Your task to perform on an android device: delete location history Image 0: 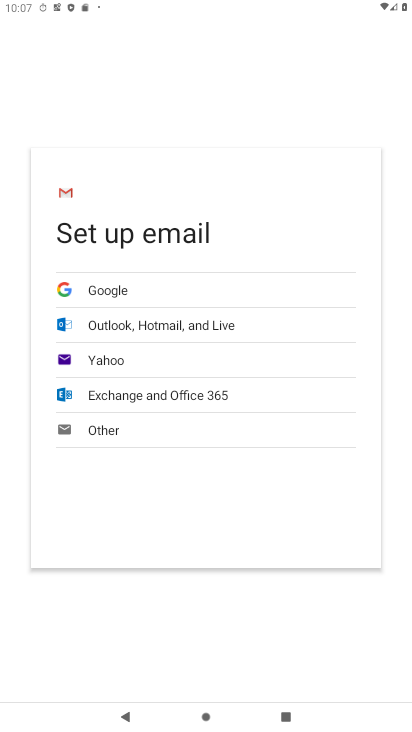
Step 0: press home button
Your task to perform on an android device: delete location history Image 1: 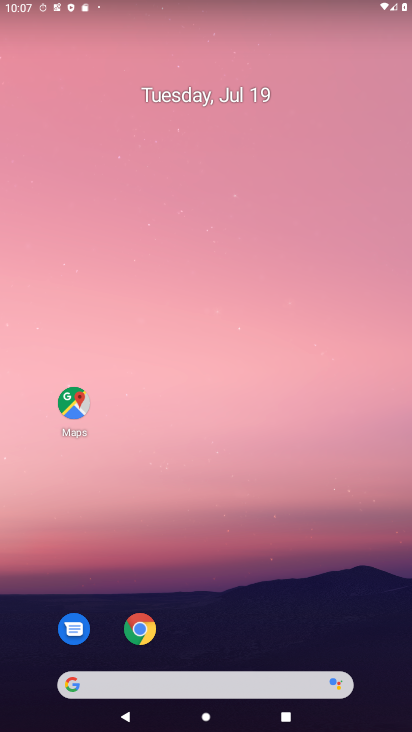
Step 1: drag from (213, 546) to (248, 130)
Your task to perform on an android device: delete location history Image 2: 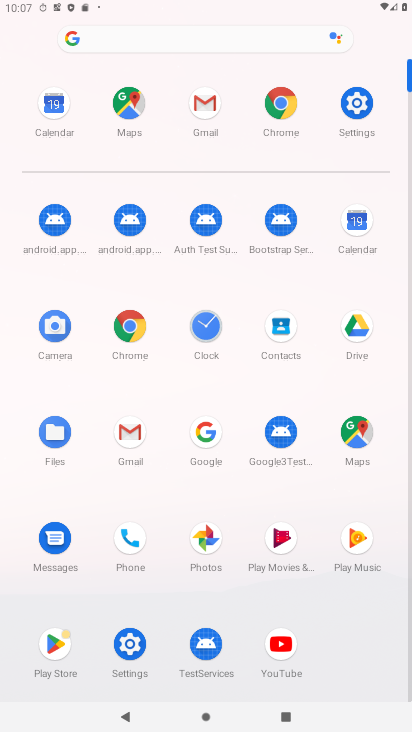
Step 2: click (359, 440)
Your task to perform on an android device: delete location history Image 3: 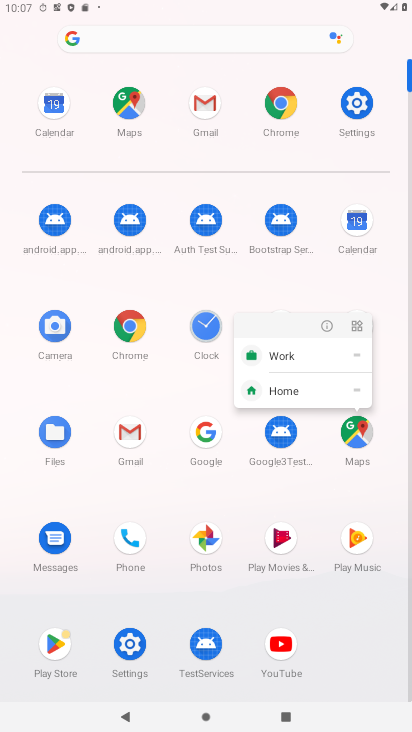
Step 3: click (358, 441)
Your task to perform on an android device: delete location history Image 4: 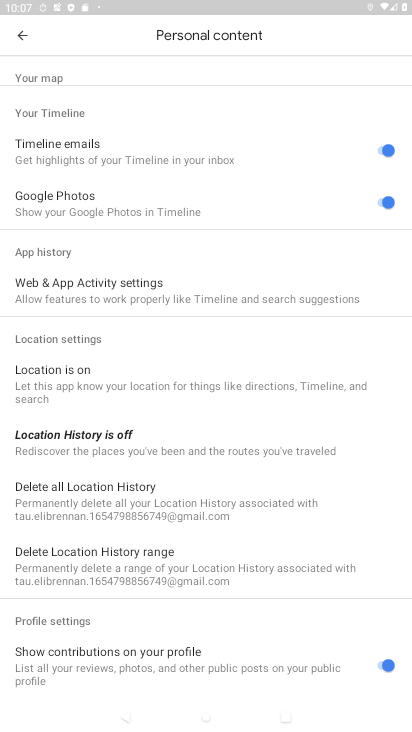
Step 4: click (121, 565)
Your task to perform on an android device: delete location history Image 5: 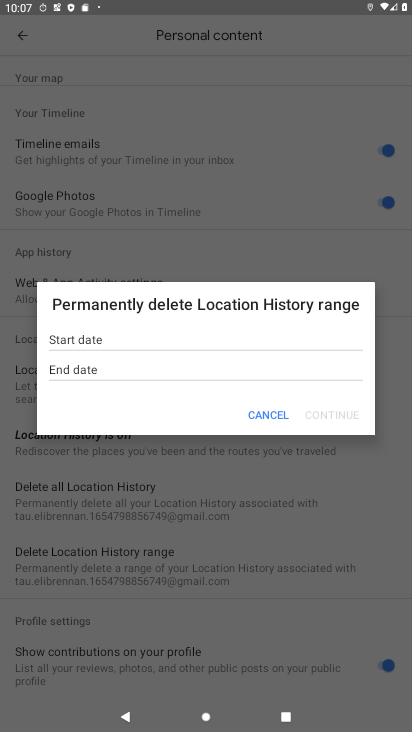
Step 5: click (132, 490)
Your task to perform on an android device: delete location history Image 6: 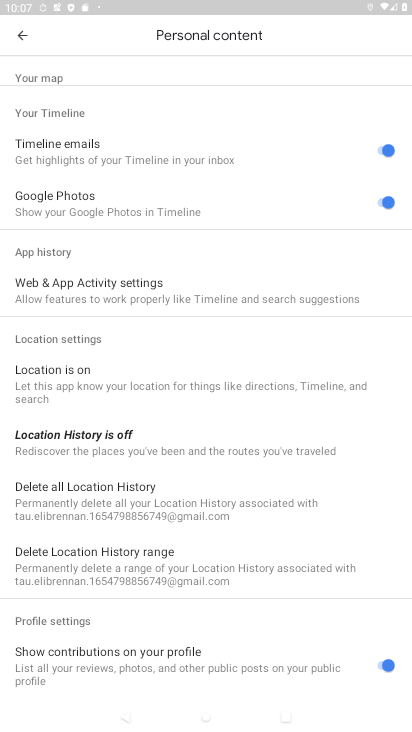
Step 6: click (122, 510)
Your task to perform on an android device: delete location history Image 7: 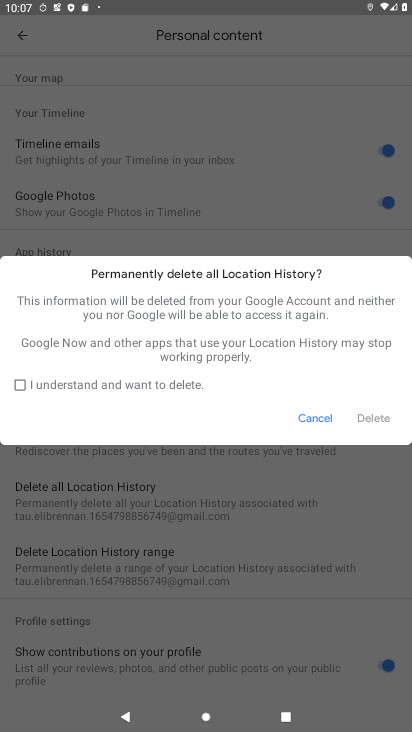
Step 7: click (141, 385)
Your task to perform on an android device: delete location history Image 8: 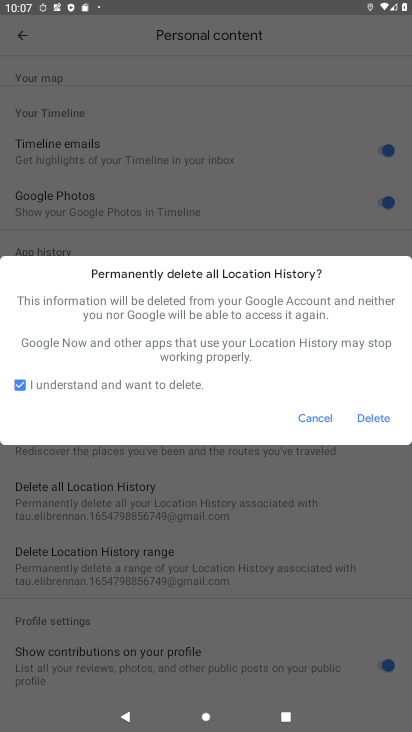
Step 8: click (368, 417)
Your task to perform on an android device: delete location history Image 9: 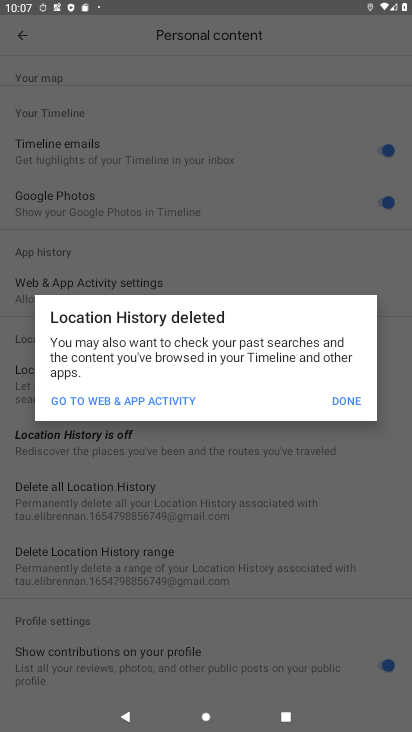
Step 9: click (348, 401)
Your task to perform on an android device: delete location history Image 10: 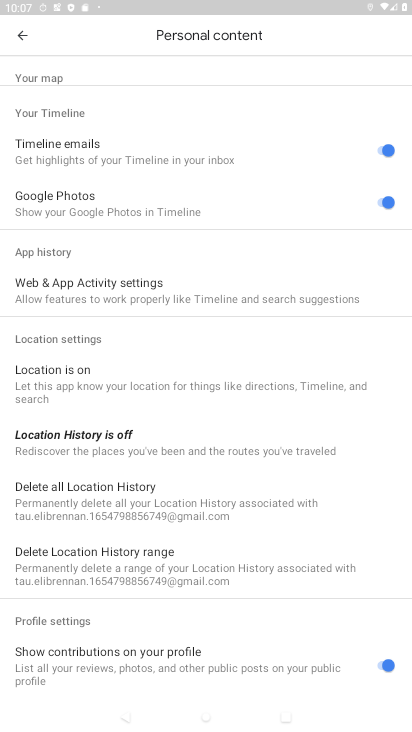
Step 10: task complete